Your task to perform on an android device: toggle wifi Image 0: 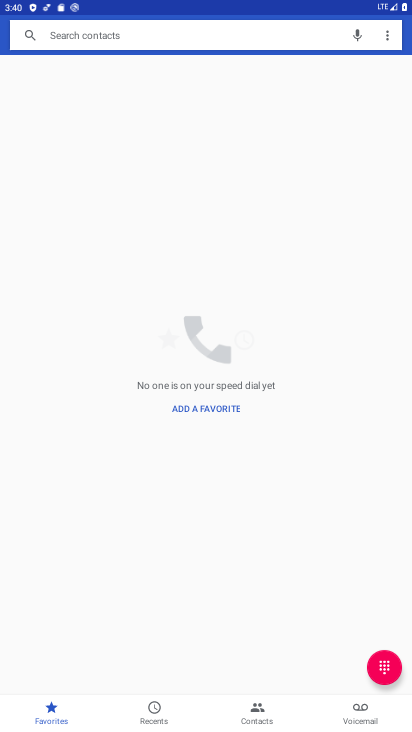
Step 0: drag from (193, 8) to (220, 501)
Your task to perform on an android device: toggle wifi Image 1: 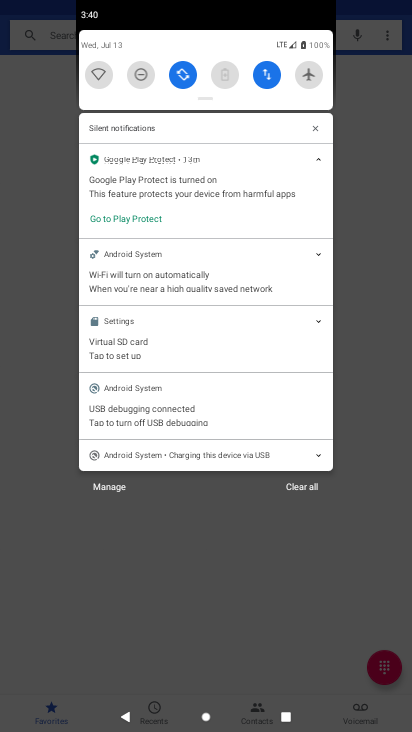
Step 1: click (93, 71)
Your task to perform on an android device: toggle wifi Image 2: 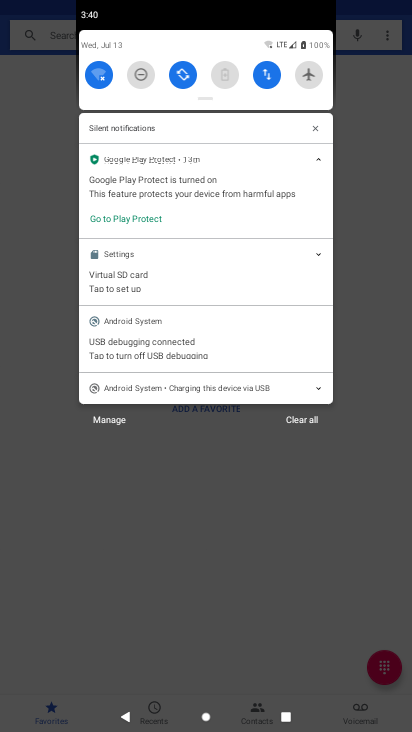
Step 2: task complete